Your task to perform on an android device: empty trash in google photos Image 0: 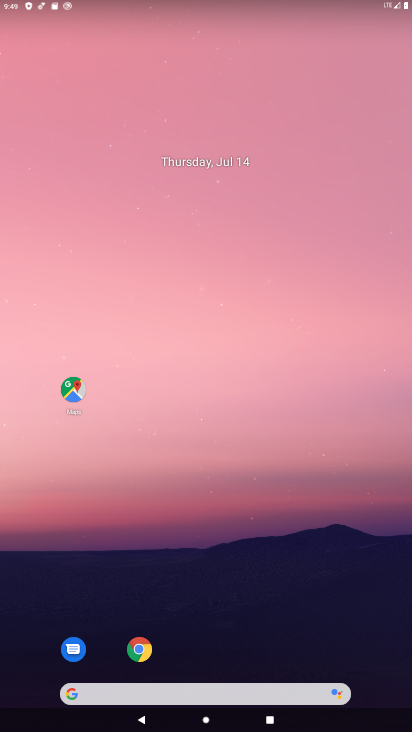
Step 0: drag from (212, 652) to (235, 87)
Your task to perform on an android device: empty trash in google photos Image 1: 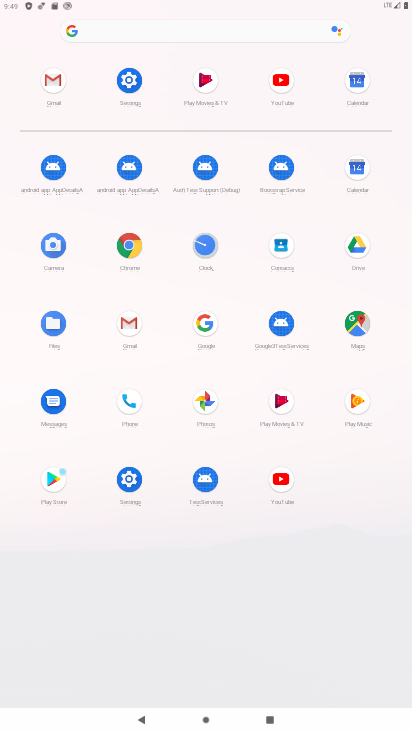
Step 1: click (198, 404)
Your task to perform on an android device: empty trash in google photos Image 2: 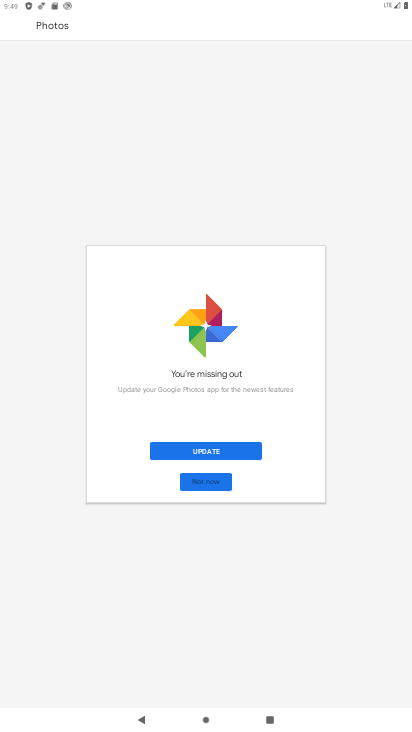
Step 2: click (195, 480)
Your task to perform on an android device: empty trash in google photos Image 3: 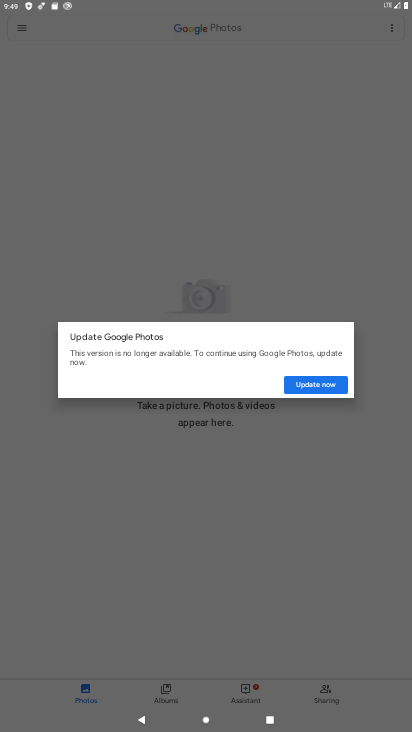
Step 3: click (299, 383)
Your task to perform on an android device: empty trash in google photos Image 4: 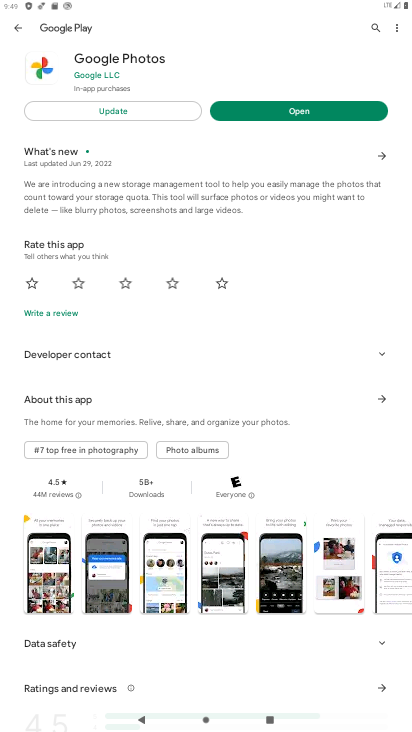
Step 4: click (284, 114)
Your task to perform on an android device: empty trash in google photos Image 5: 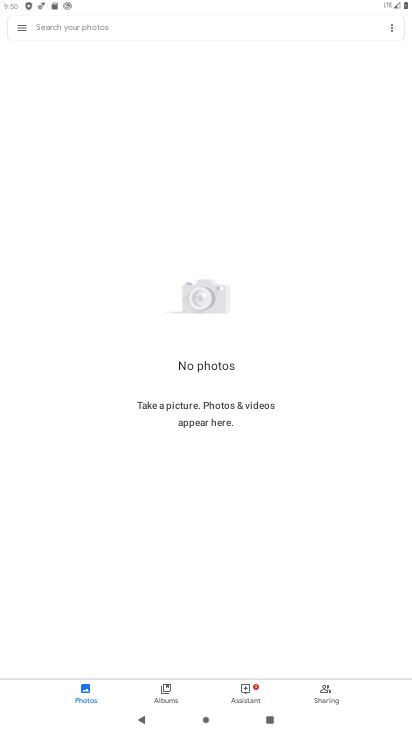
Step 5: click (11, 27)
Your task to perform on an android device: empty trash in google photos Image 6: 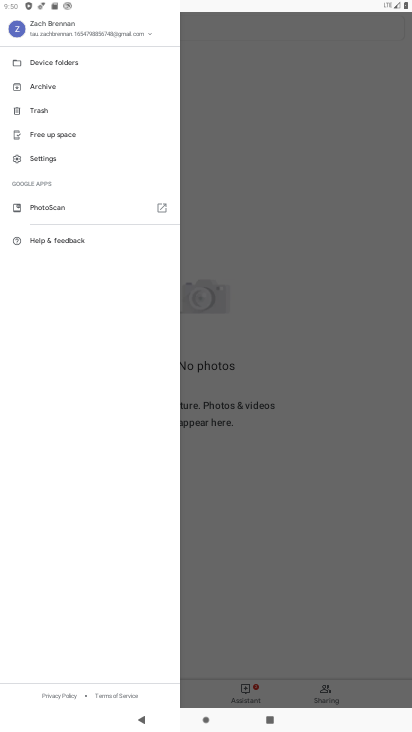
Step 6: click (36, 116)
Your task to perform on an android device: empty trash in google photos Image 7: 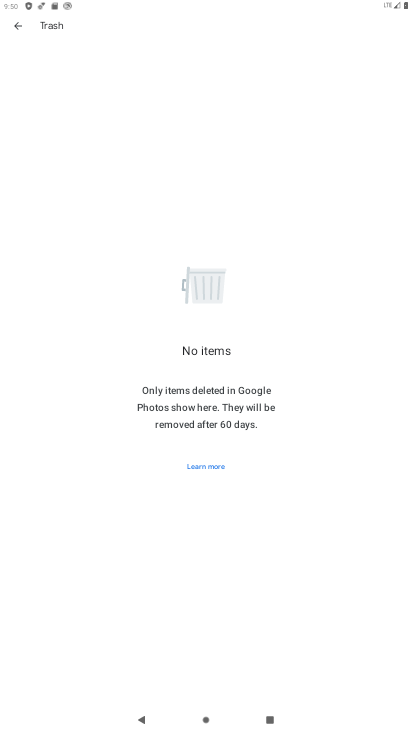
Step 7: task complete